Your task to perform on an android device: Go to Google maps Image 0: 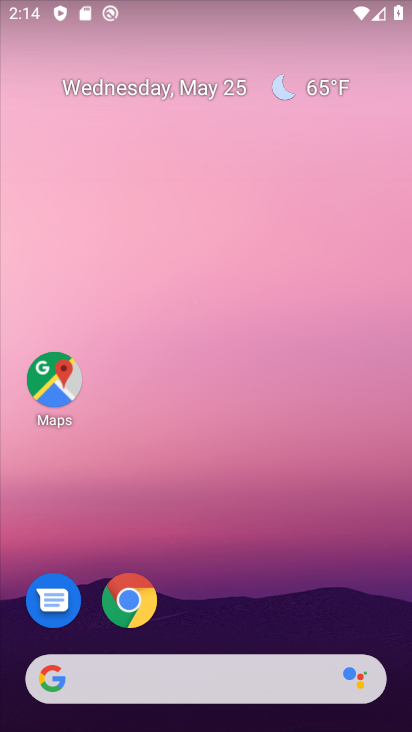
Step 0: click (37, 381)
Your task to perform on an android device: Go to Google maps Image 1: 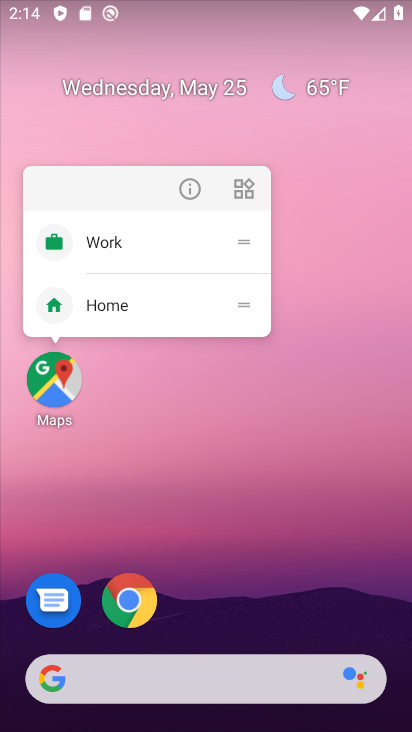
Step 1: click (60, 373)
Your task to perform on an android device: Go to Google maps Image 2: 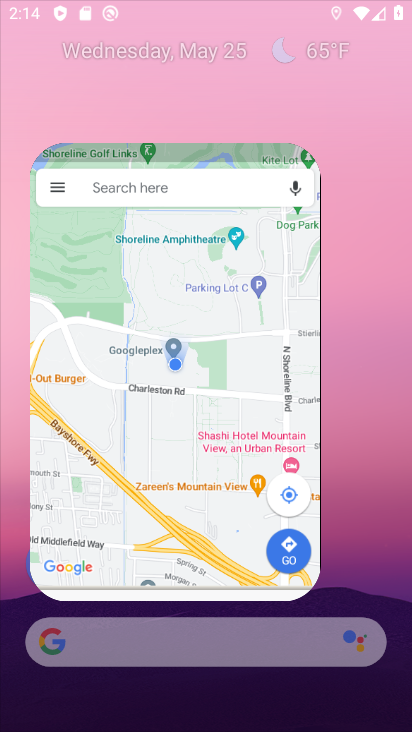
Step 2: click (61, 382)
Your task to perform on an android device: Go to Google maps Image 3: 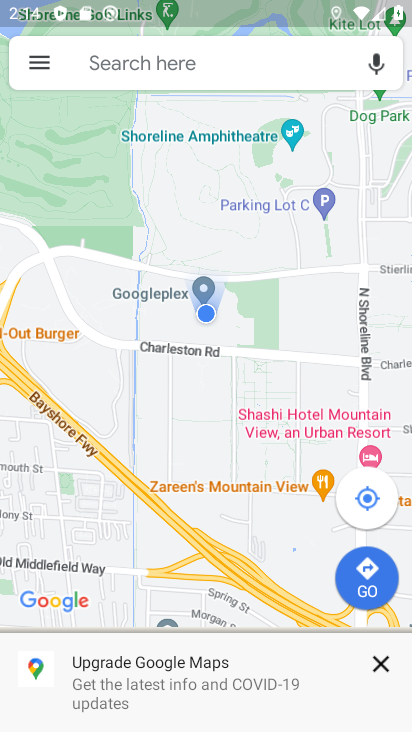
Step 3: task complete